Your task to perform on an android device: Do I have any events this weekend? Image 0: 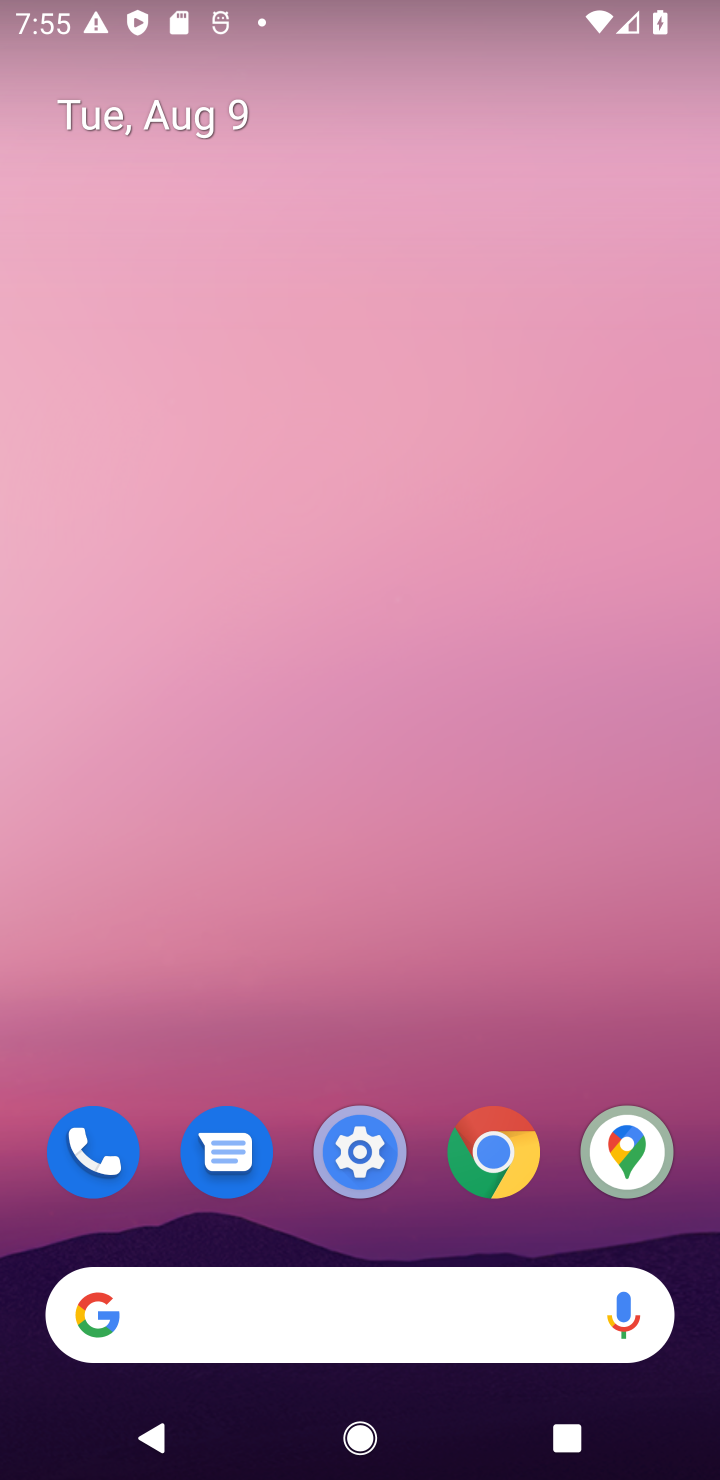
Step 0: click (134, 100)
Your task to perform on an android device: Do I have any events this weekend? Image 1: 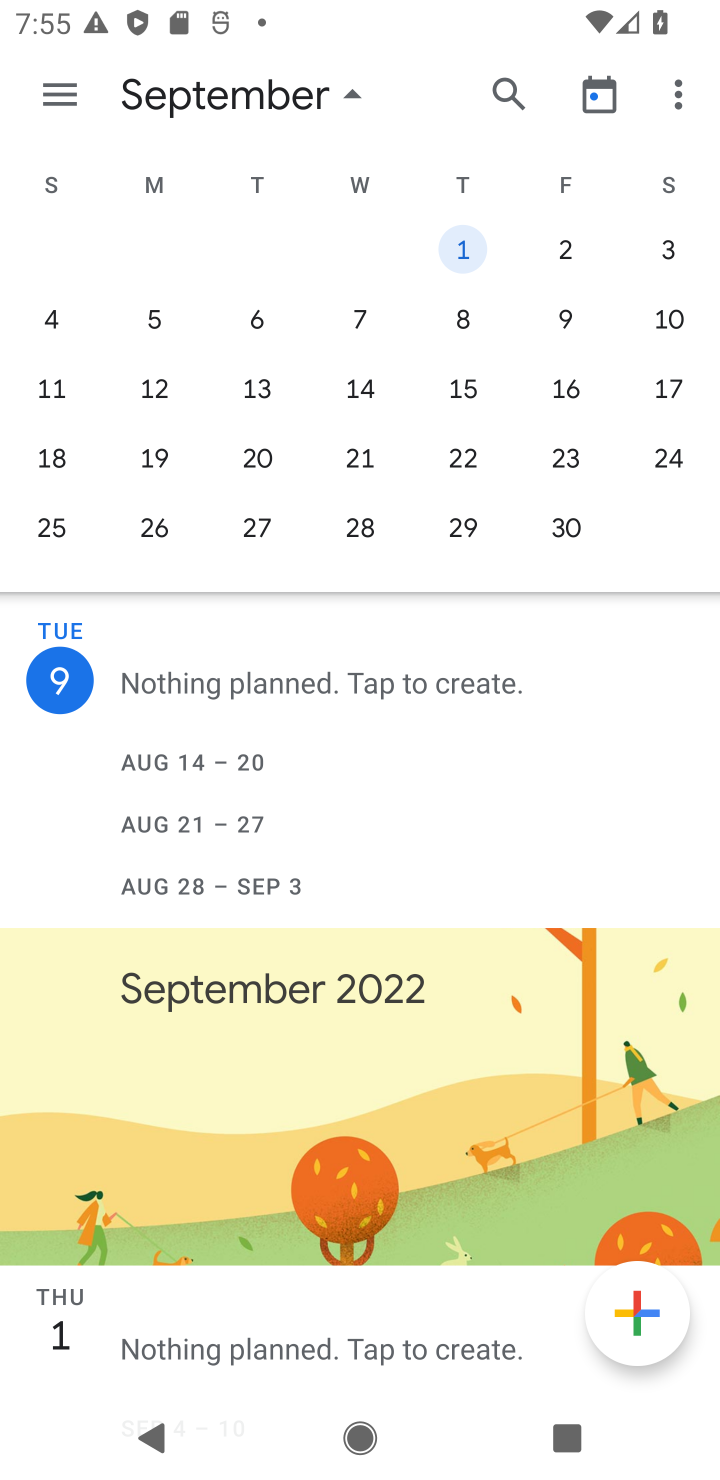
Step 1: drag from (115, 248) to (623, 523)
Your task to perform on an android device: Do I have any events this weekend? Image 2: 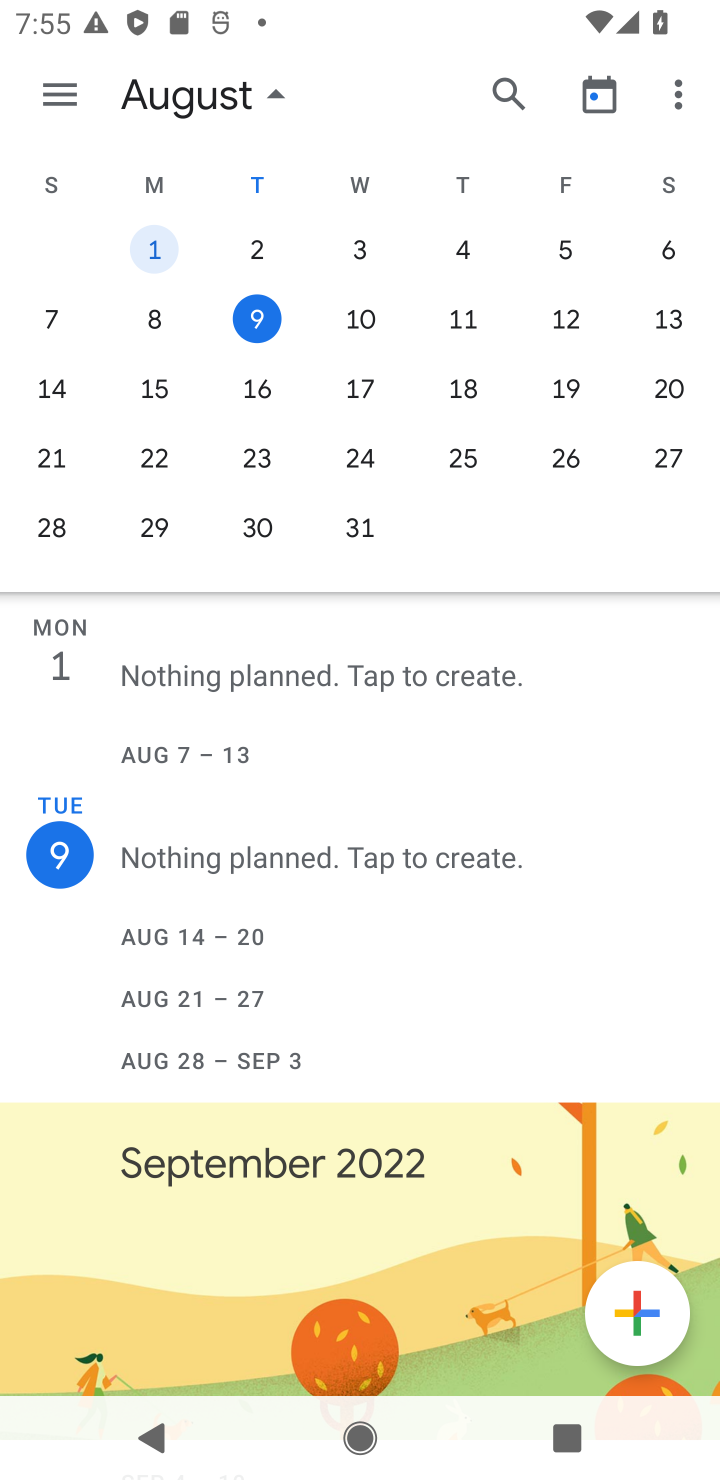
Step 2: click (658, 314)
Your task to perform on an android device: Do I have any events this weekend? Image 3: 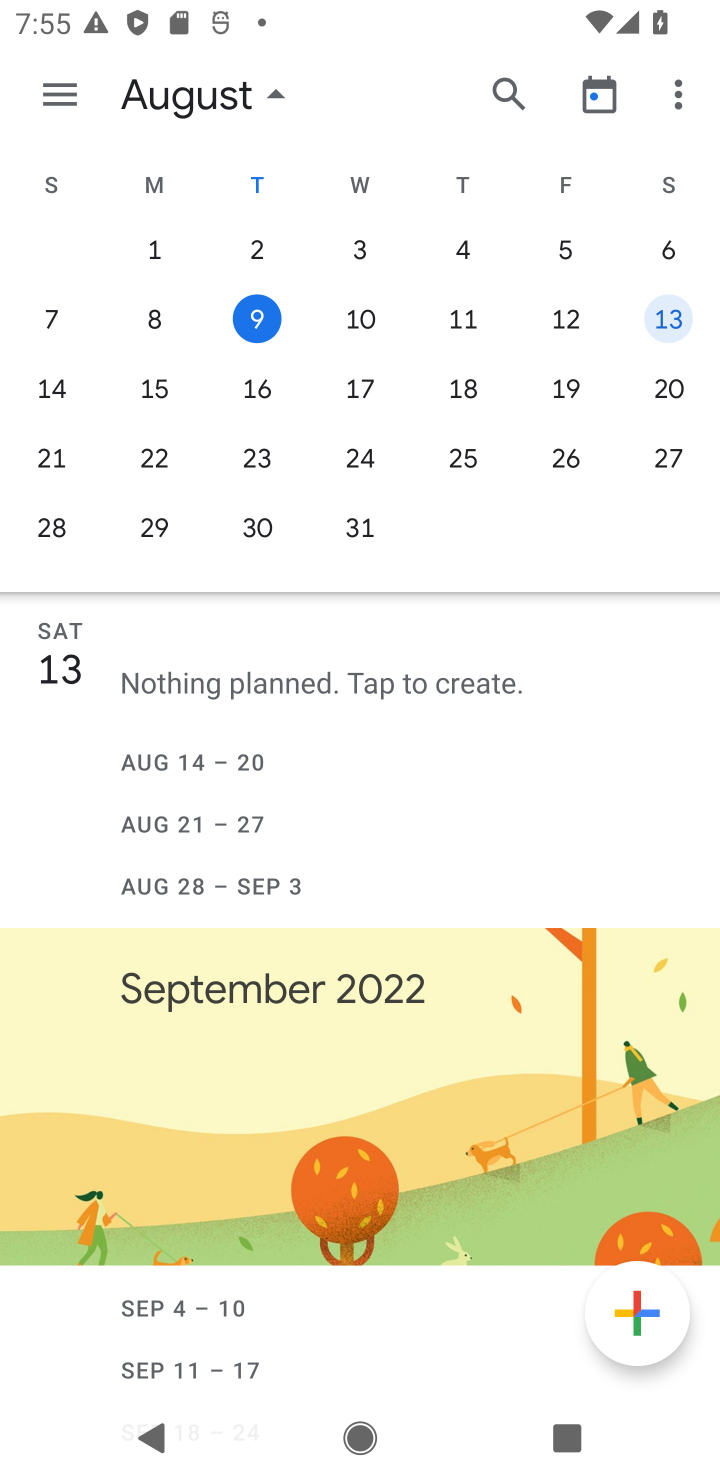
Step 3: task complete